Your task to perform on an android device: toggle airplane mode Image 0: 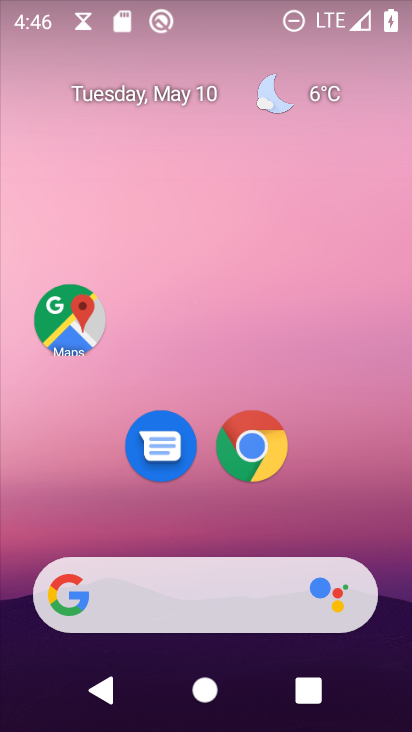
Step 0: drag from (263, 399) to (217, 148)
Your task to perform on an android device: toggle airplane mode Image 1: 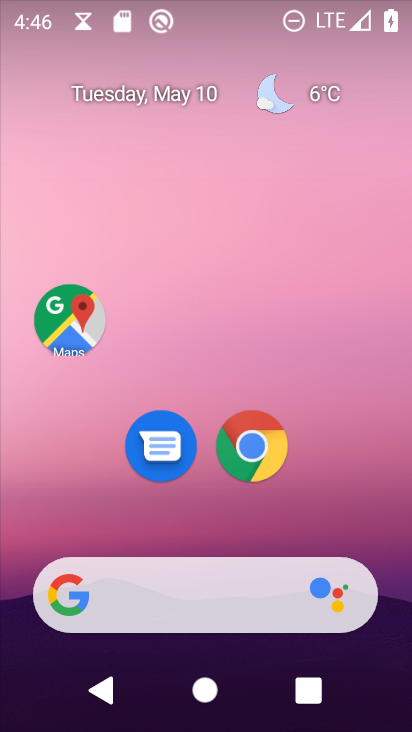
Step 1: drag from (265, 536) to (146, 62)
Your task to perform on an android device: toggle airplane mode Image 2: 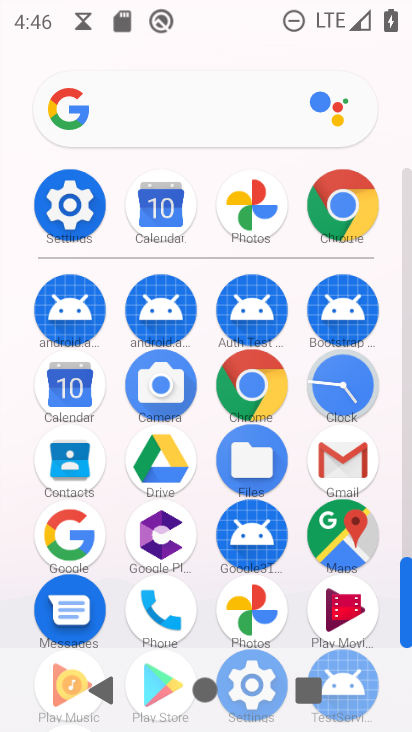
Step 2: click (79, 208)
Your task to perform on an android device: toggle airplane mode Image 3: 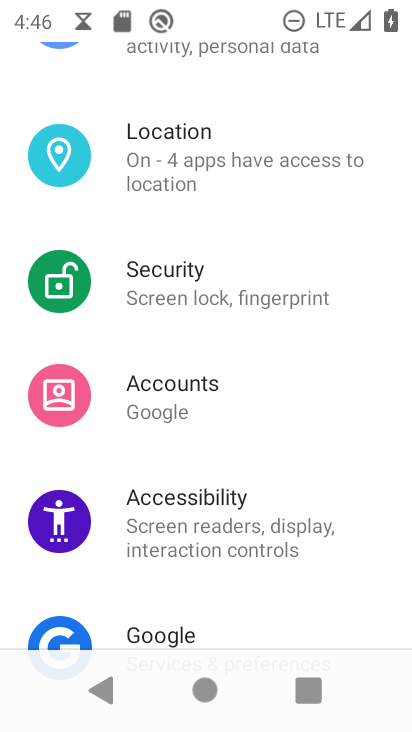
Step 3: drag from (259, 108) to (238, 625)
Your task to perform on an android device: toggle airplane mode Image 4: 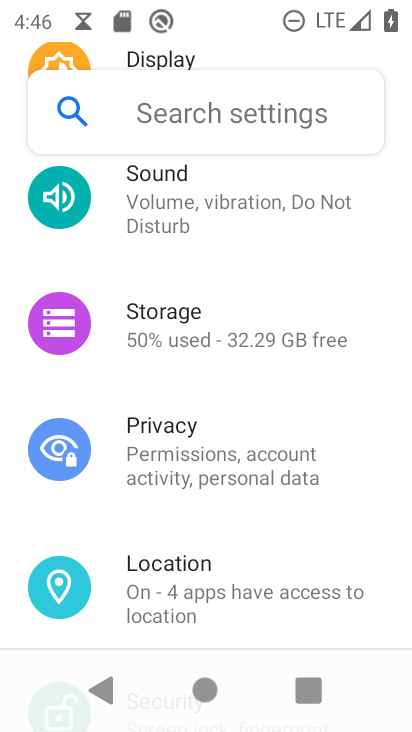
Step 4: drag from (222, 212) to (222, 631)
Your task to perform on an android device: toggle airplane mode Image 5: 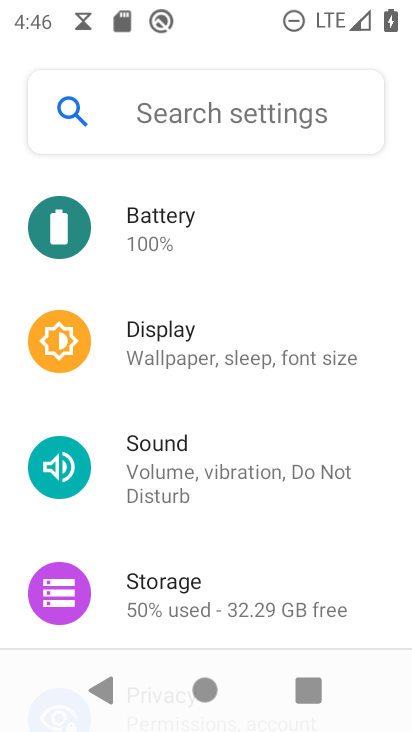
Step 5: drag from (224, 216) to (229, 655)
Your task to perform on an android device: toggle airplane mode Image 6: 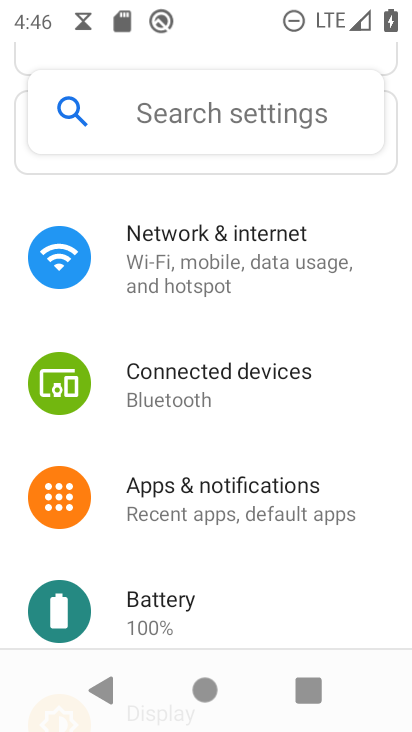
Step 6: click (213, 265)
Your task to perform on an android device: toggle airplane mode Image 7: 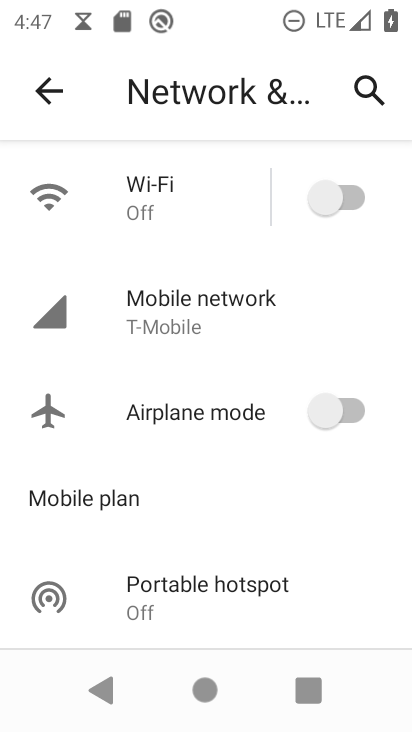
Step 7: click (329, 399)
Your task to perform on an android device: toggle airplane mode Image 8: 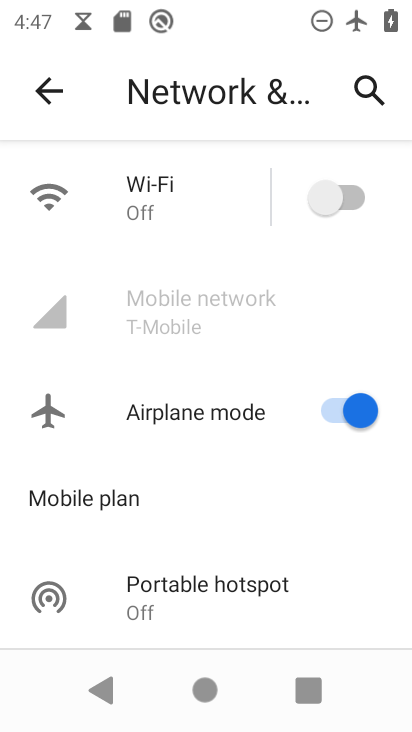
Step 8: task complete